Your task to perform on an android device: Search for sushi restaurants on Maps Image 0: 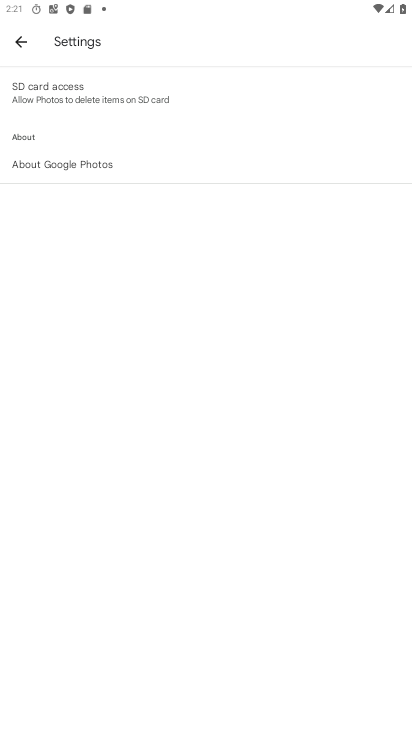
Step 0: drag from (402, 716) to (351, 153)
Your task to perform on an android device: Search for sushi restaurants on Maps Image 1: 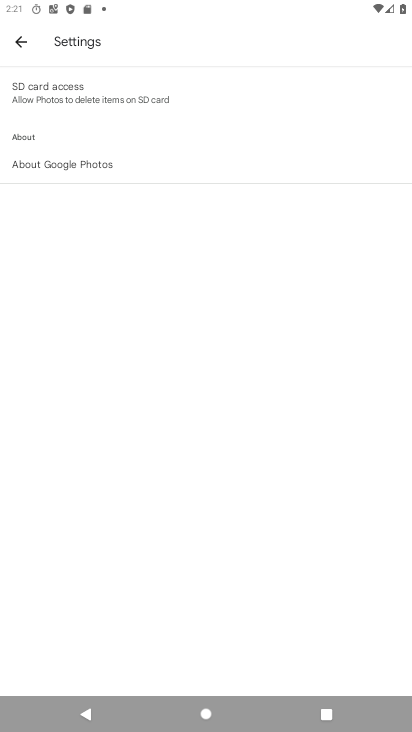
Step 1: press home button
Your task to perform on an android device: Search for sushi restaurants on Maps Image 2: 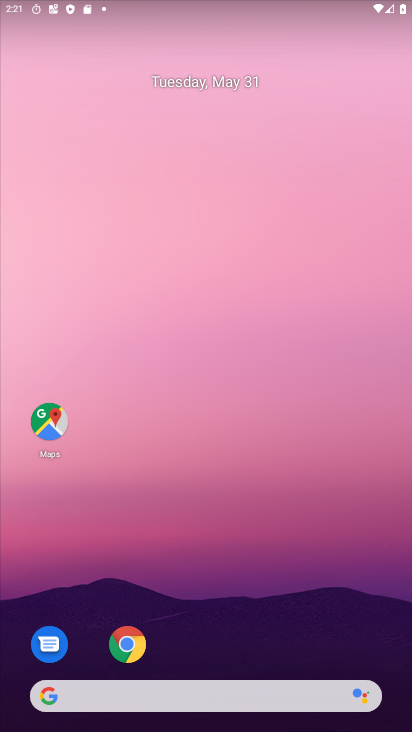
Step 2: click (47, 409)
Your task to perform on an android device: Search for sushi restaurants on Maps Image 3: 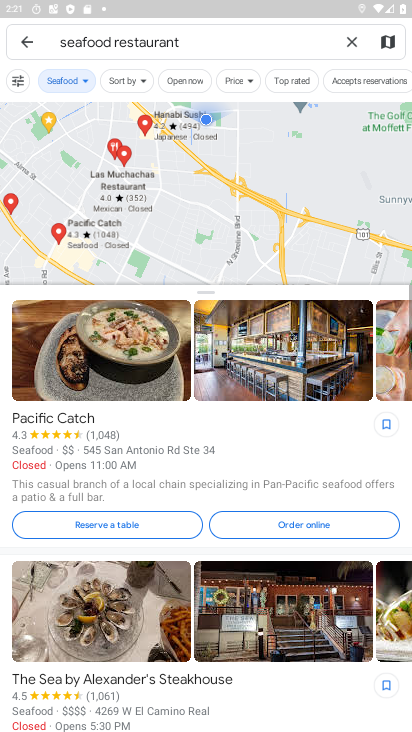
Step 3: click (354, 36)
Your task to perform on an android device: Search for sushi restaurants on Maps Image 4: 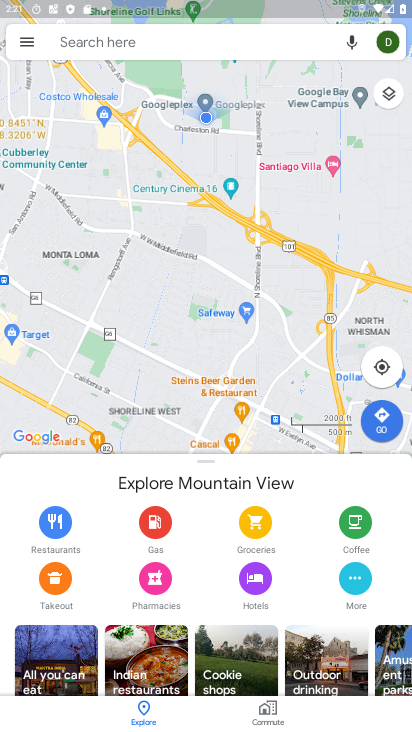
Step 4: type "sushi restaurants"
Your task to perform on an android device: Search for sushi restaurants on Maps Image 5: 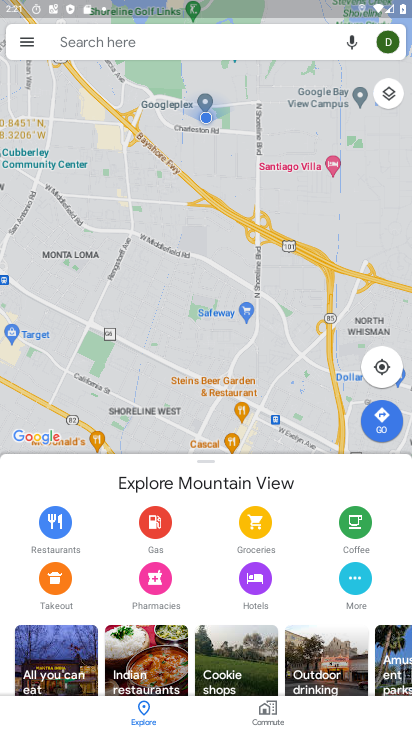
Step 5: click (113, 43)
Your task to perform on an android device: Search for sushi restaurants on Maps Image 6: 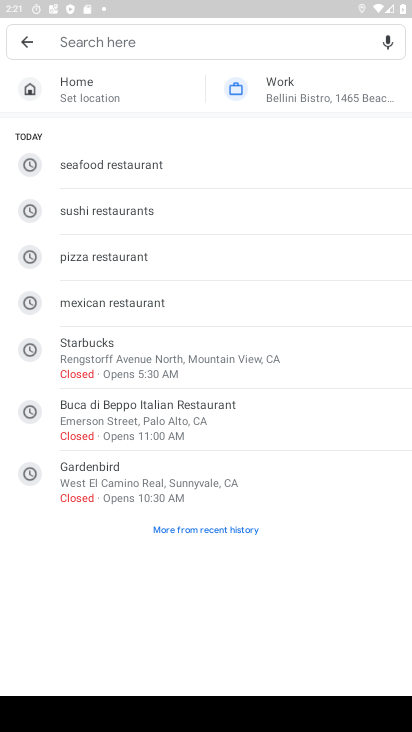
Step 6: type "sushi restaurants"
Your task to perform on an android device: Search for sushi restaurants on Maps Image 7: 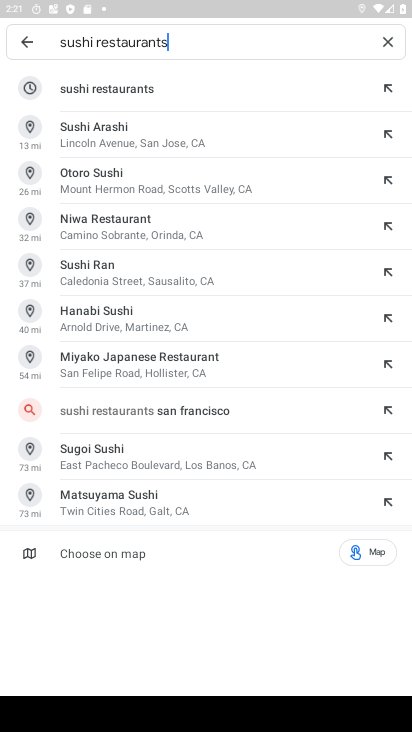
Step 7: click (85, 87)
Your task to perform on an android device: Search for sushi restaurants on Maps Image 8: 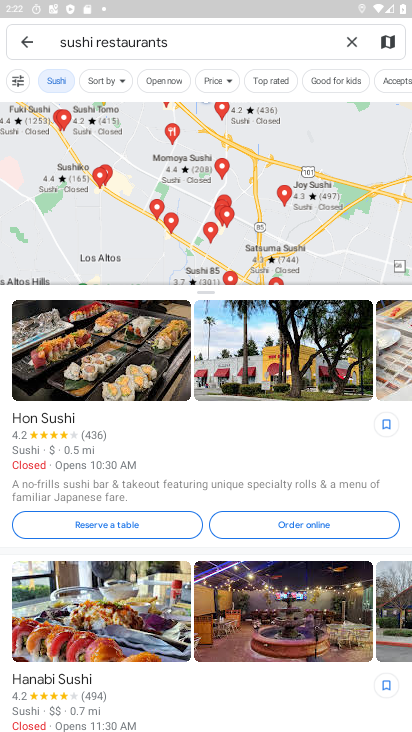
Step 8: task complete